Your task to perform on an android device: allow notifications from all sites in the chrome app Image 0: 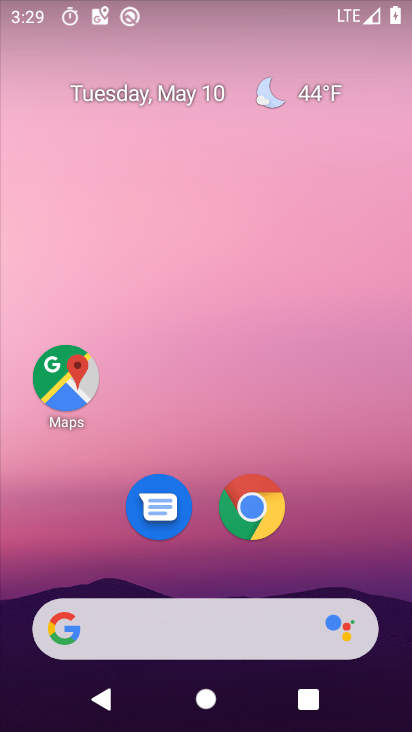
Step 0: drag from (254, 7) to (286, 405)
Your task to perform on an android device: allow notifications from all sites in the chrome app Image 1: 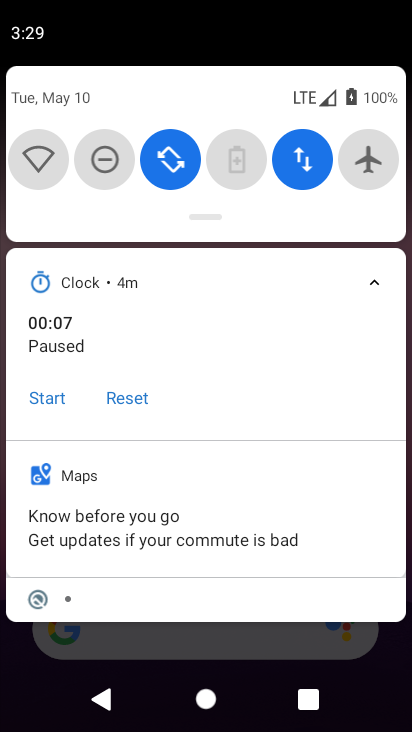
Step 1: drag from (364, 197) to (408, 554)
Your task to perform on an android device: allow notifications from all sites in the chrome app Image 2: 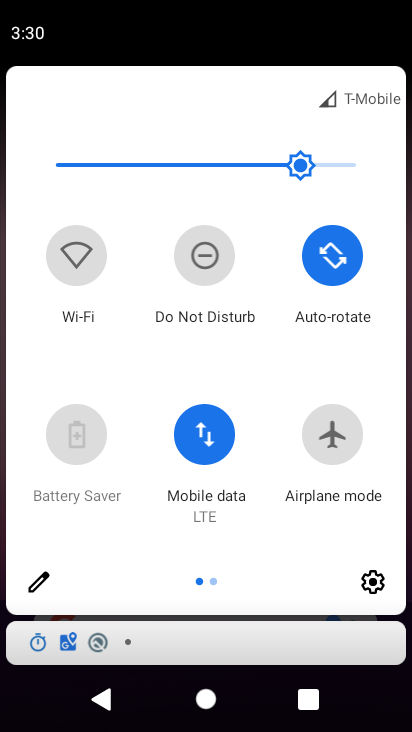
Step 2: drag from (396, 364) to (61, 380)
Your task to perform on an android device: allow notifications from all sites in the chrome app Image 3: 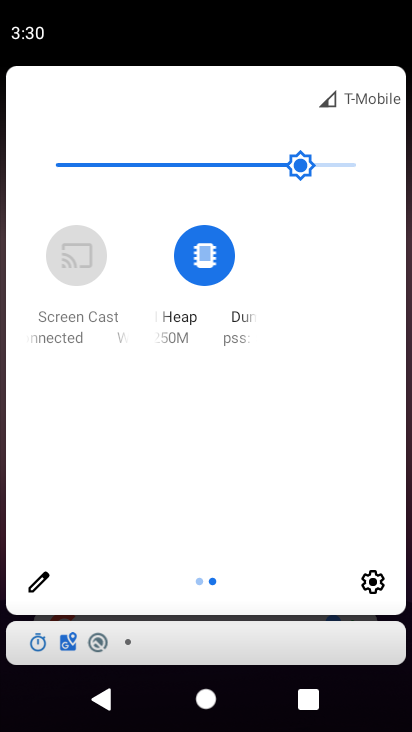
Step 3: click (29, 570)
Your task to perform on an android device: allow notifications from all sites in the chrome app Image 4: 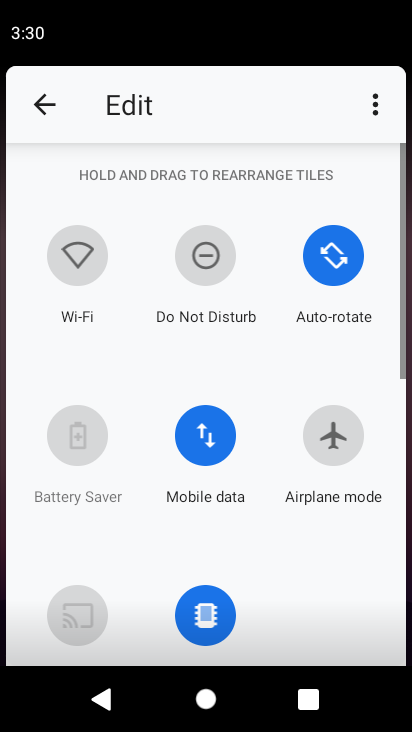
Step 4: drag from (297, 608) to (297, 264)
Your task to perform on an android device: allow notifications from all sites in the chrome app Image 5: 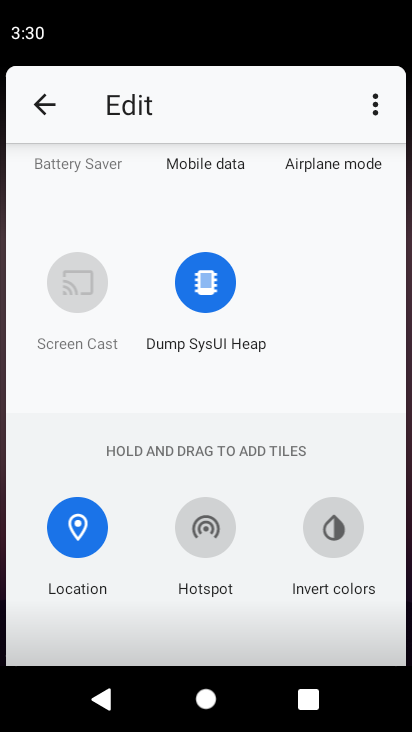
Step 5: drag from (281, 580) to (294, 307)
Your task to perform on an android device: allow notifications from all sites in the chrome app Image 6: 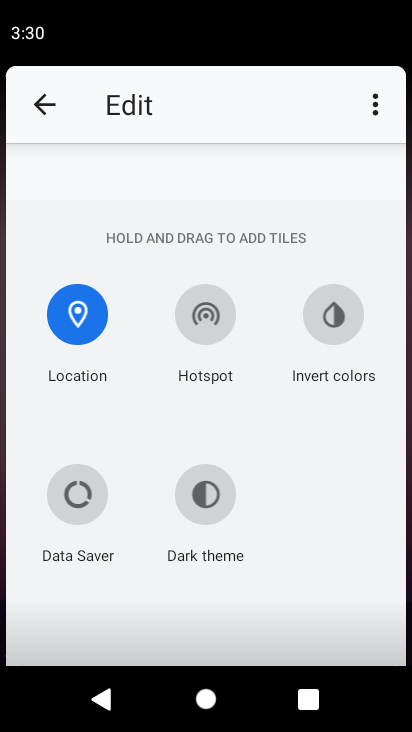
Step 6: press home button
Your task to perform on an android device: allow notifications from all sites in the chrome app Image 7: 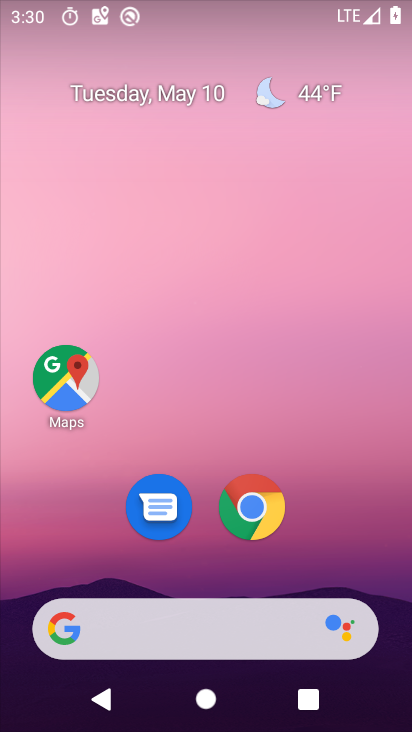
Step 7: click (245, 510)
Your task to perform on an android device: allow notifications from all sites in the chrome app Image 8: 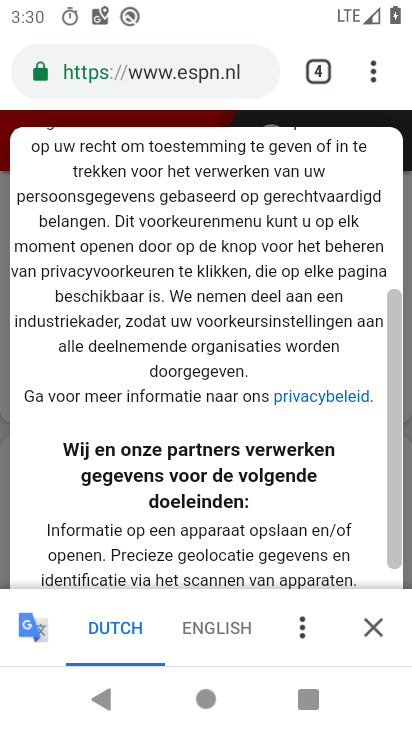
Step 8: click (370, 84)
Your task to perform on an android device: allow notifications from all sites in the chrome app Image 9: 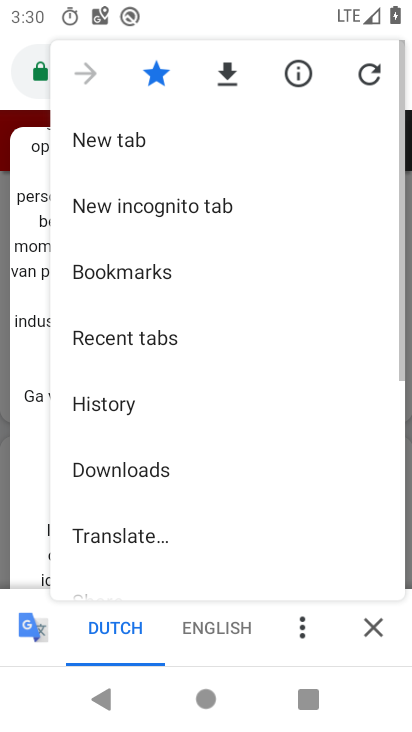
Step 9: drag from (181, 551) to (181, 204)
Your task to perform on an android device: allow notifications from all sites in the chrome app Image 10: 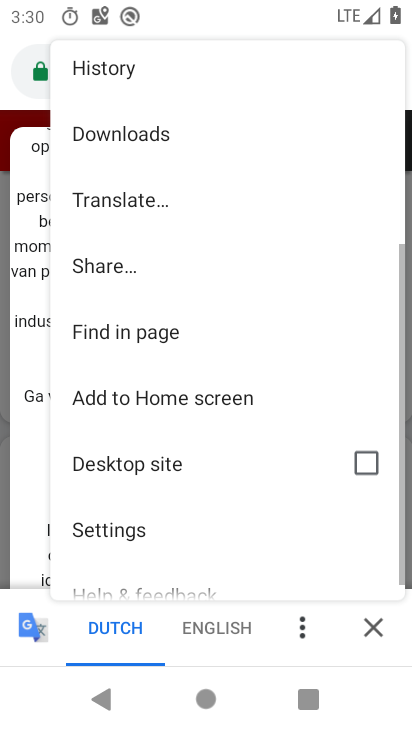
Step 10: click (87, 524)
Your task to perform on an android device: allow notifications from all sites in the chrome app Image 11: 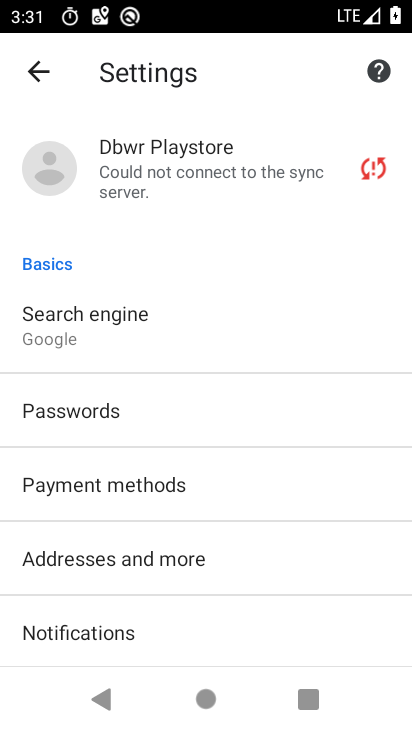
Step 11: drag from (120, 642) to (135, 338)
Your task to perform on an android device: allow notifications from all sites in the chrome app Image 12: 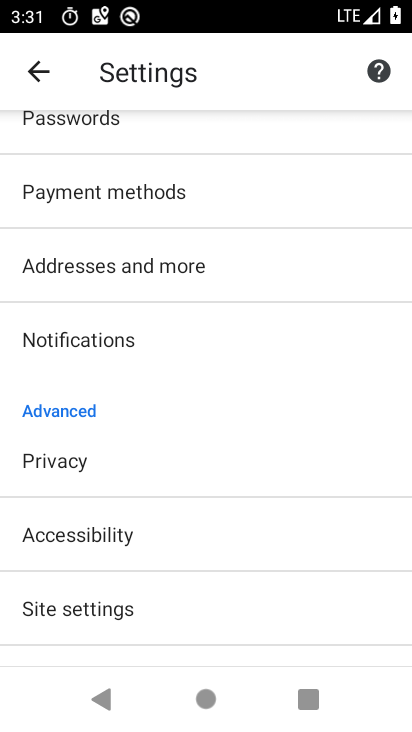
Step 12: drag from (67, 616) to (86, 421)
Your task to perform on an android device: allow notifications from all sites in the chrome app Image 13: 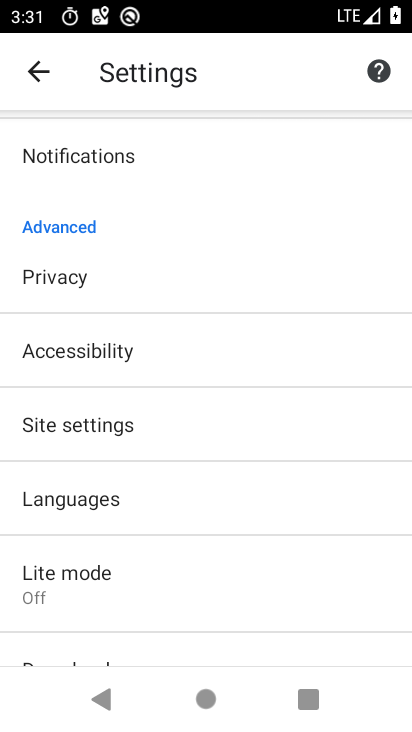
Step 13: click (74, 430)
Your task to perform on an android device: allow notifications from all sites in the chrome app Image 14: 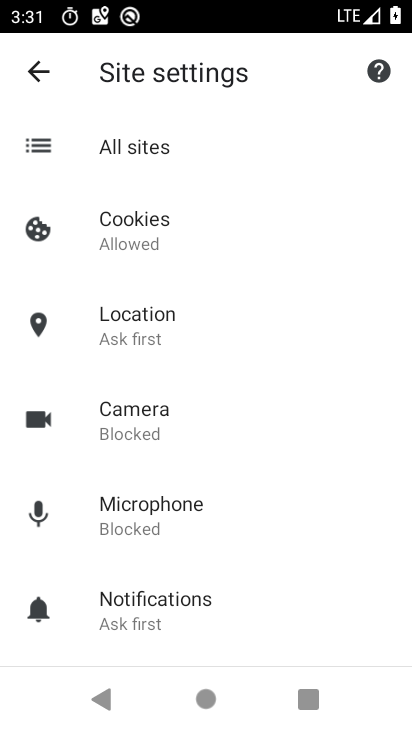
Step 14: click (142, 339)
Your task to perform on an android device: allow notifications from all sites in the chrome app Image 15: 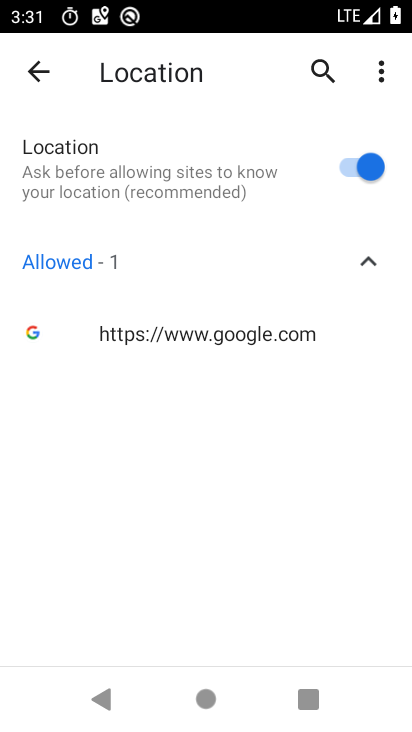
Step 15: task complete